Your task to perform on an android device: What's the news this month? Image 0: 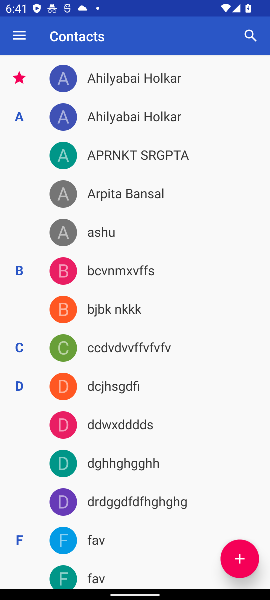
Step 0: press home button
Your task to perform on an android device: What's the news this month? Image 1: 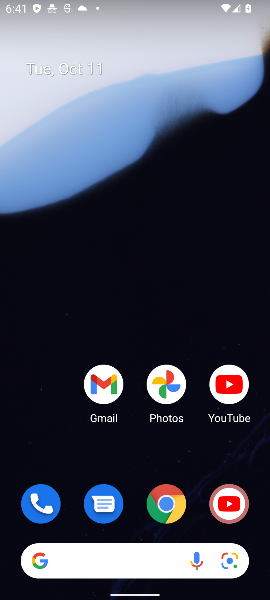
Step 1: click (133, 551)
Your task to perform on an android device: What's the news this month? Image 2: 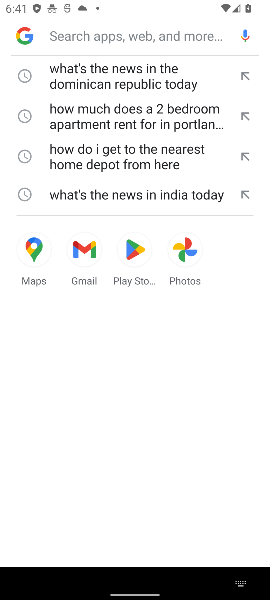
Step 2: click (101, 45)
Your task to perform on an android device: What's the news this month? Image 3: 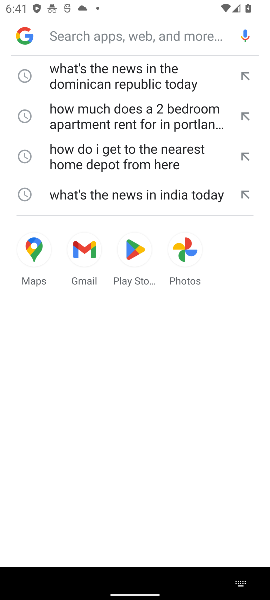
Step 3: type "What's the news this month?"
Your task to perform on an android device: What's the news this month? Image 4: 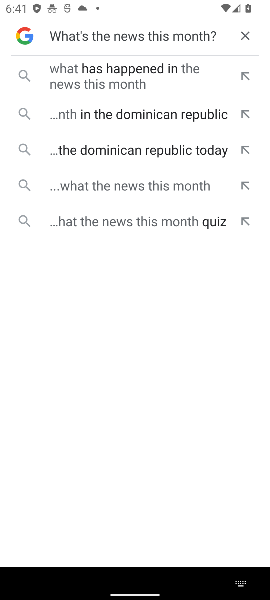
Step 4: click (117, 78)
Your task to perform on an android device: What's the news this month? Image 5: 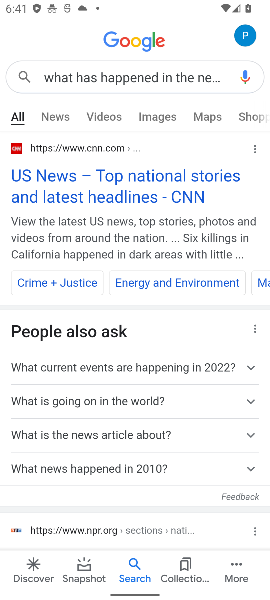
Step 5: task complete